Your task to perform on an android device: turn off data saver in the chrome app Image 0: 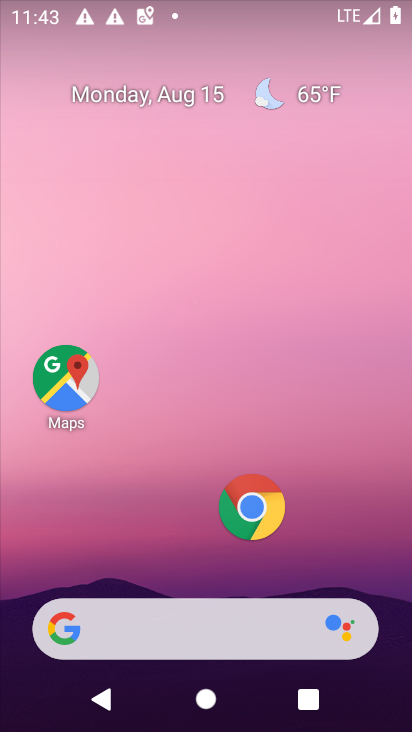
Step 0: click (249, 515)
Your task to perform on an android device: turn off data saver in the chrome app Image 1: 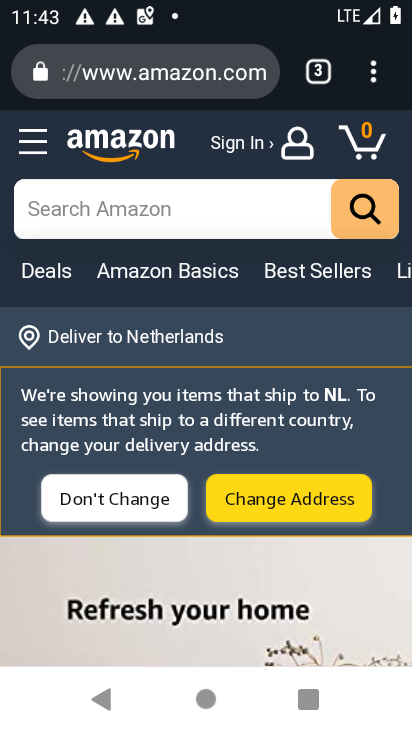
Step 1: click (368, 75)
Your task to perform on an android device: turn off data saver in the chrome app Image 2: 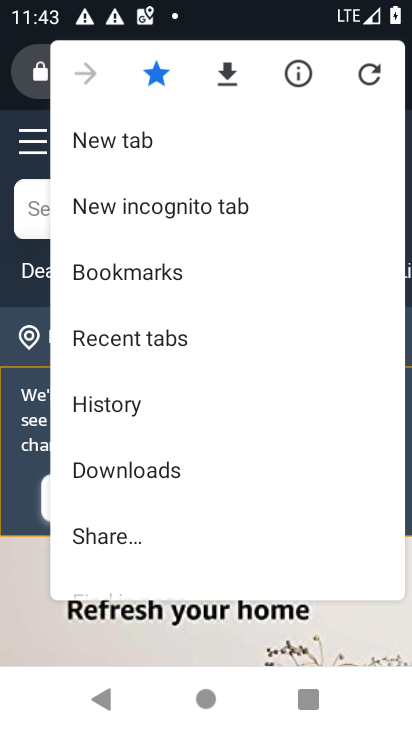
Step 2: drag from (235, 492) to (229, 176)
Your task to perform on an android device: turn off data saver in the chrome app Image 3: 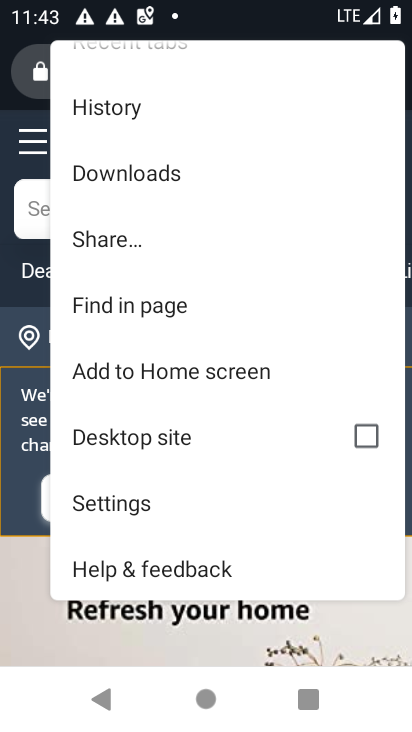
Step 3: click (126, 505)
Your task to perform on an android device: turn off data saver in the chrome app Image 4: 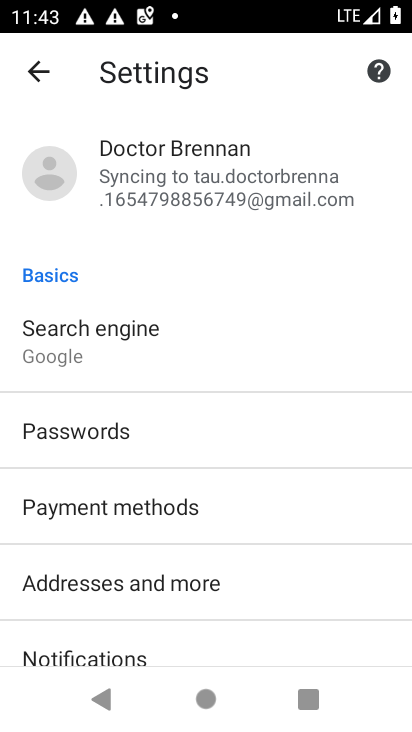
Step 4: drag from (253, 641) to (226, 322)
Your task to perform on an android device: turn off data saver in the chrome app Image 5: 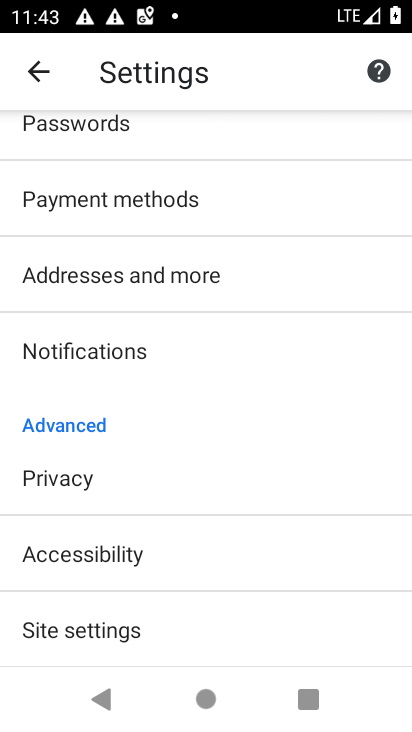
Step 5: drag from (187, 575) to (152, 282)
Your task to perform on an android device: turn off data saver in the chrome app Image 6: 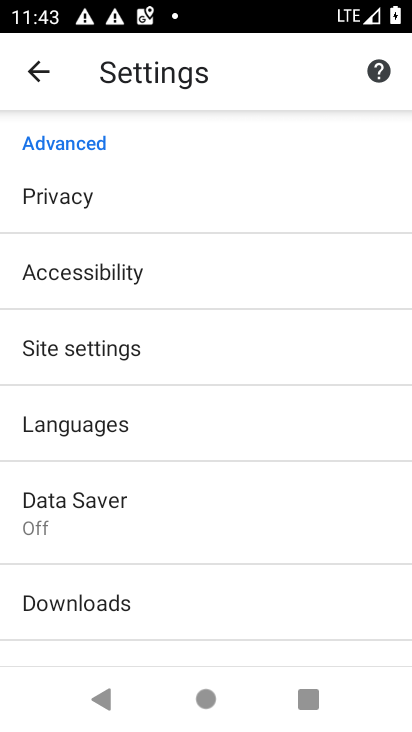
Step 6: click (70, 495)
Your task to perform on an android device: turn off data saver in the chrome app Image 7: 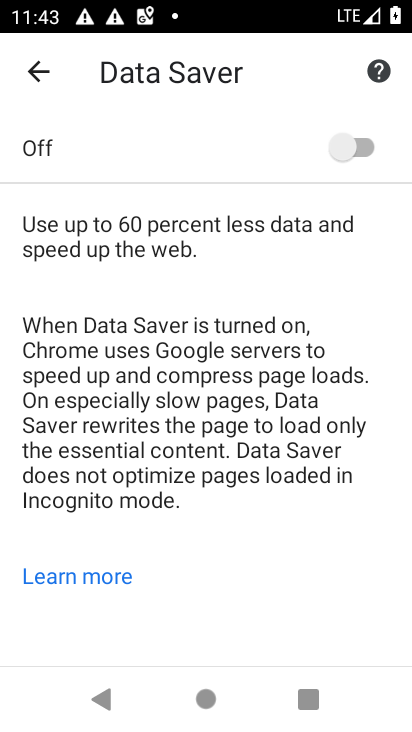
Step 7: task complete